Your task to perform on an android device: find which apps use the phone's location Image 0: 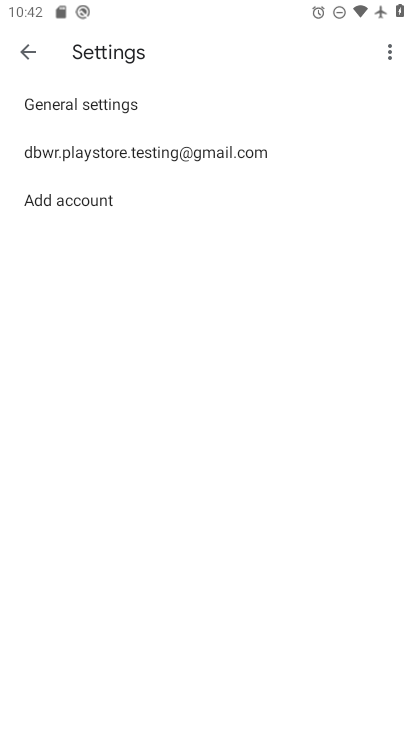
Step 0: press home button
Your task to perform on an android device: find which apps use the phone's location Image 1: 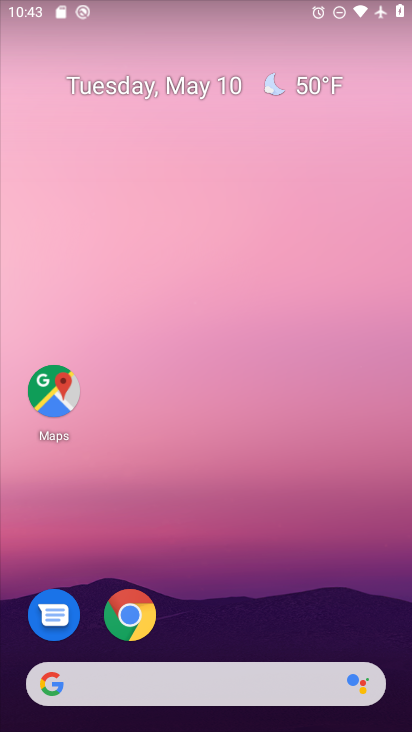
Step 1: drag from (369, 643) to (277, 92)
Your task to perform on an android device: find which apps use the phone's location Image 2: 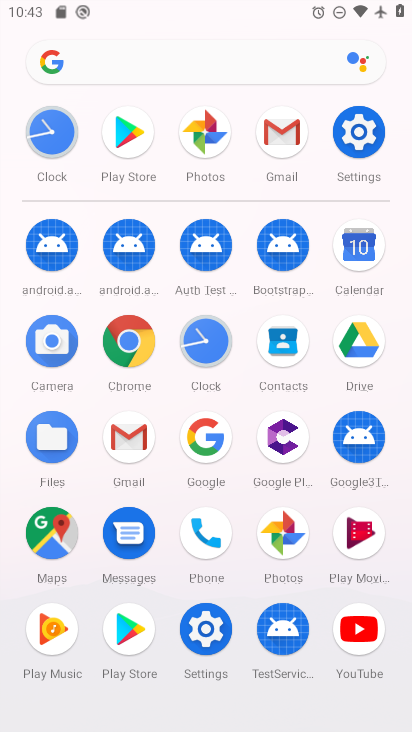
Step 2: click (205, 618)
Your task to perform on an android device: find which apps use the phone's location Image 3: 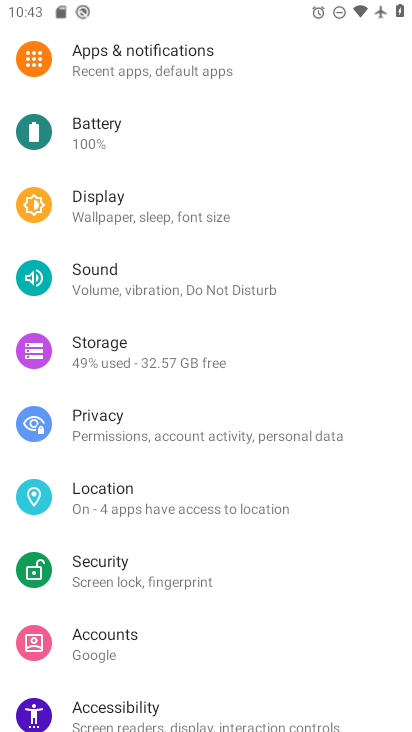
Step 3: click (113, 478)
Your task to perform on an android device: find which apps use the phone's location Image 4: 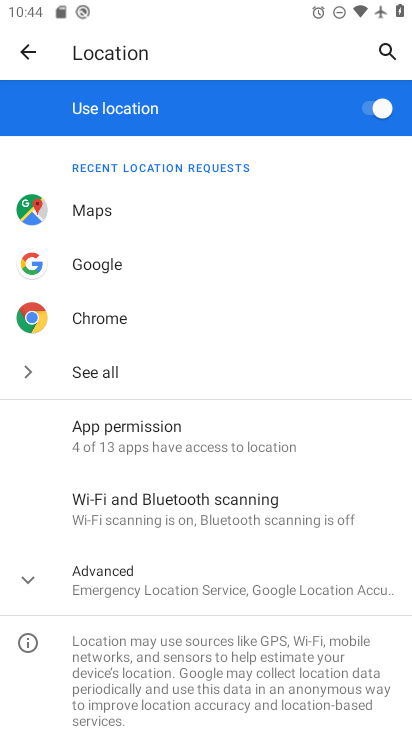
Step 4: click (144, 417)
Your task to perform on an android device: find which apps use the phone's location Image 5: 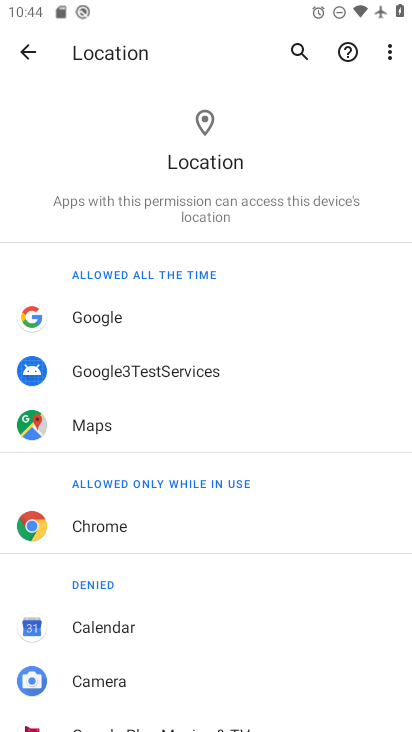
Step 5: drag from (299, 641) to (278, 274)
Your task to perform on an android device: find which apps use the phone's location Image 6: 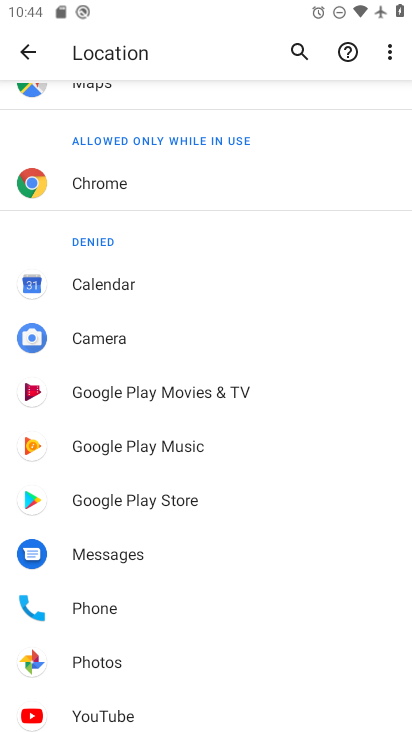
Step 6: drag from (247, 615) to (269, 117)
Your task to perform on an android device: find which apps use the phone's location Image 7: 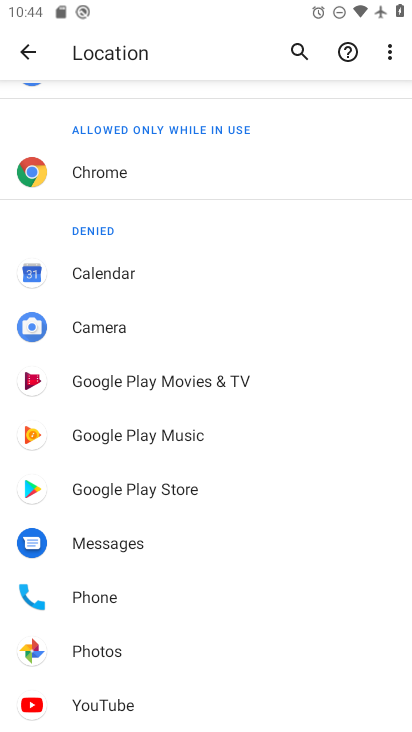
Step 7: click (99, 644)
Your task to perform on an android device: find which apps use the phone's location Image 8: 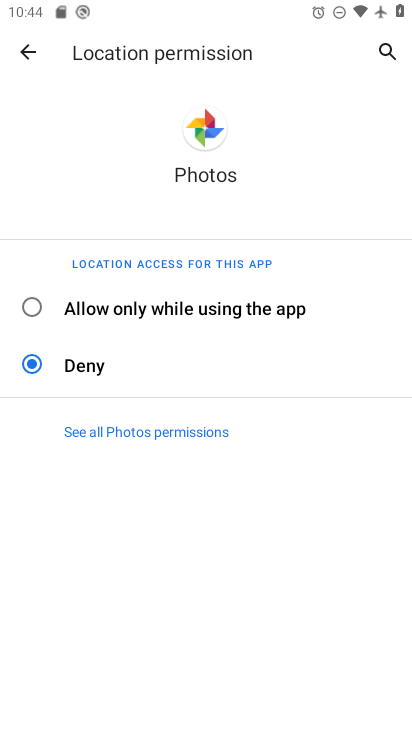
Step 8: task complete